Your task to perform on an android device: Open Youtube and go to the subscriptions tab Image 0: 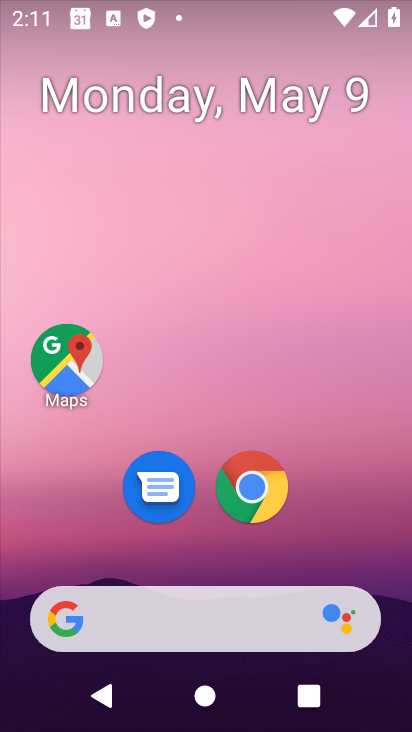
Step 0: drag from (357, 555) to (294, 19)
Your task to perform on an android device: Open Youtube and go to the subscriptions tab Image 1: 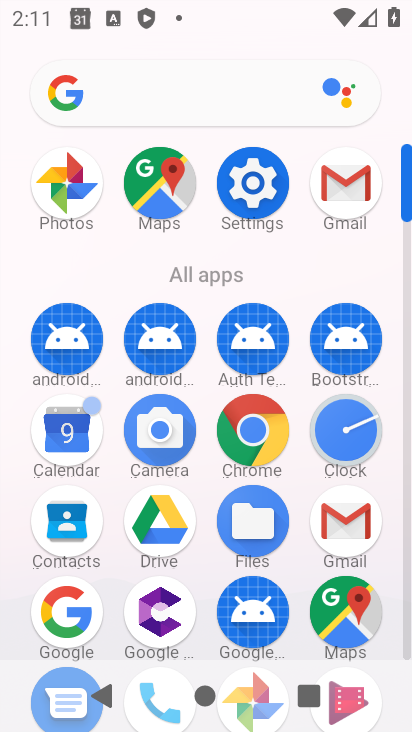
Step 1: drag from (299, 548) to (303, 73)
Your task to perform on an android device: Open Youtube and go to the subscriptions tab Image 2: 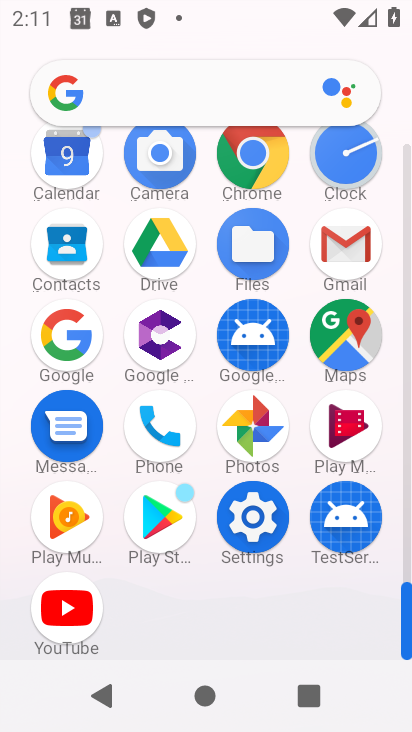
Step 2: click (66, 600)
Your task to perform on an android device: Open Youtube and go to the subscriptions tab Image 3: 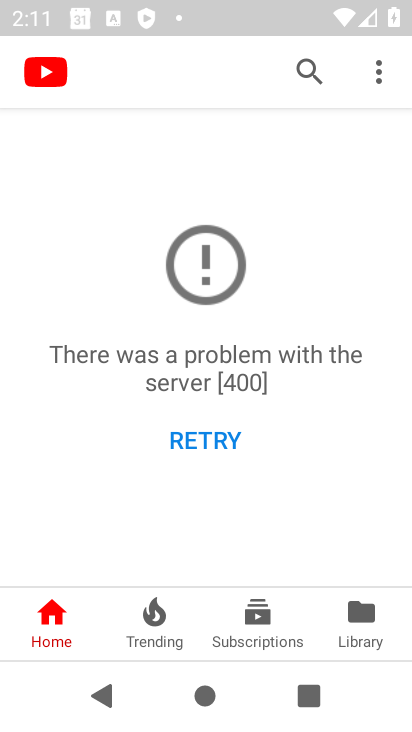
Step 3: click (253, 622)
Your task to perform on an android device: Open Youtube and go to the subscriptions tab Image 4: 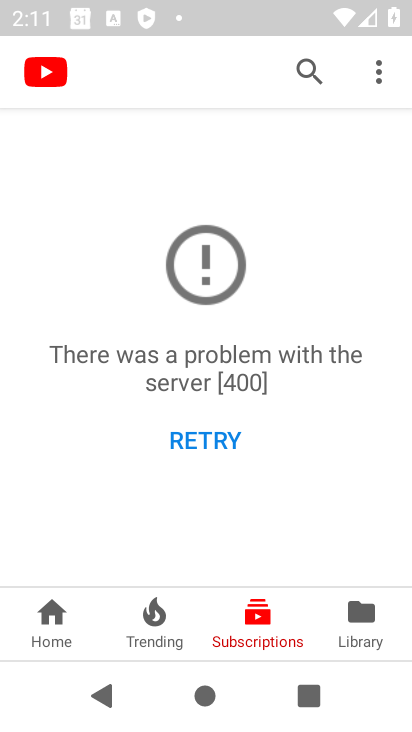
Step 4: click (260, 608)
Your task to perform on an android device: Open Youtube and go to the subscriptions tab Image 5: 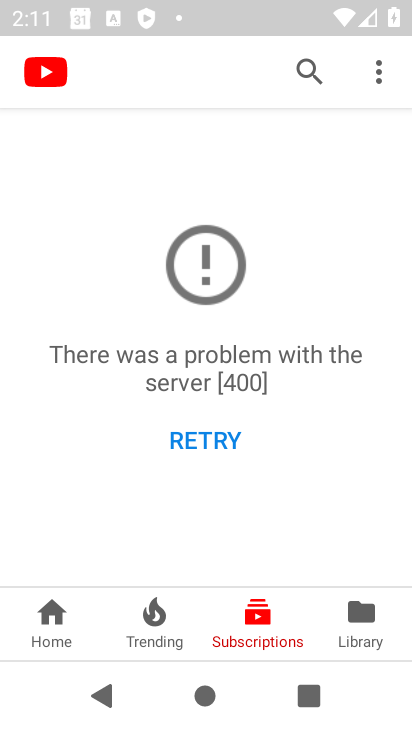
Step 5: task complete